Your task to perform on an android device: Open Google Maps Image 0: 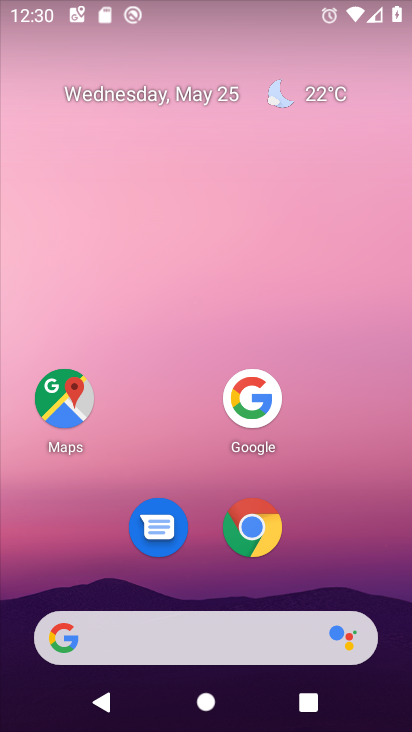
Step 0: press home button
Your task to perform on an android device: Open Google Maps Image 1: 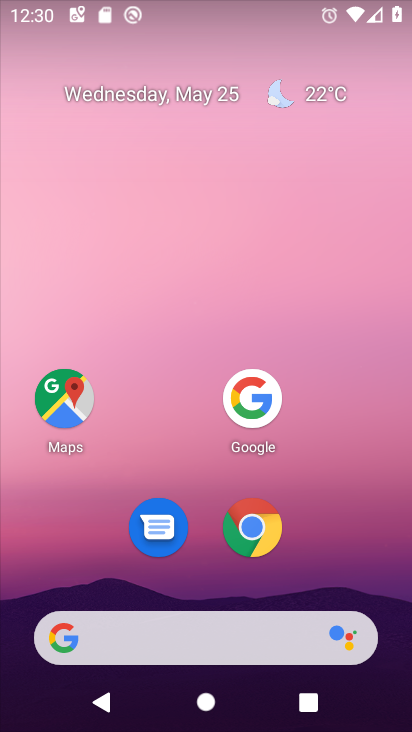
Step 1: click (77, 405)
Your task to perform on an android device: Open Google Maps Image 2: 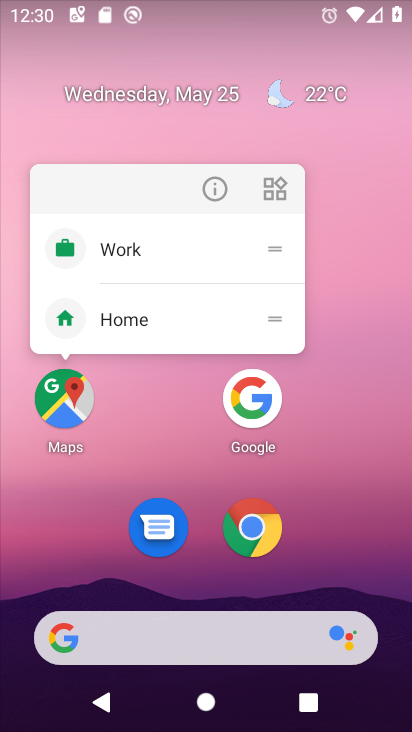
Step 2: click (57, 411)
Your task to perform on an android device: Open Google Maps Image 3: 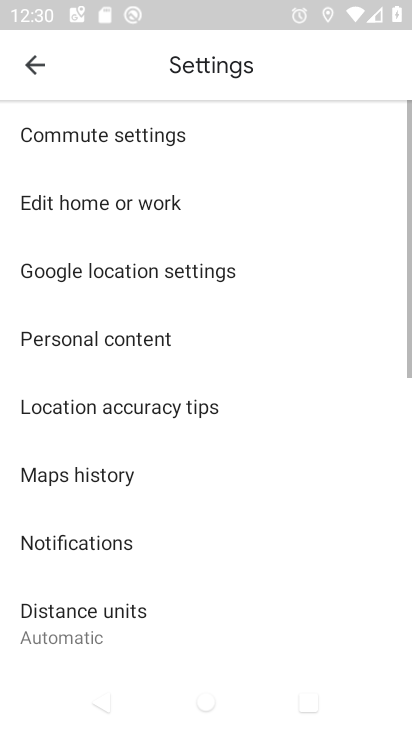
Step 3: click (26, 61)
Your task to perform on an android device: Open Google Maps Image 4: 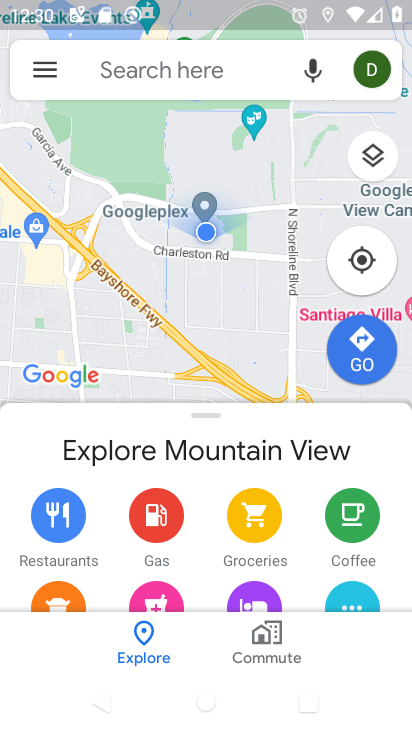
Step 4: task complete